Your task to perform on an android device: turn off improve location accuracy Image 0: 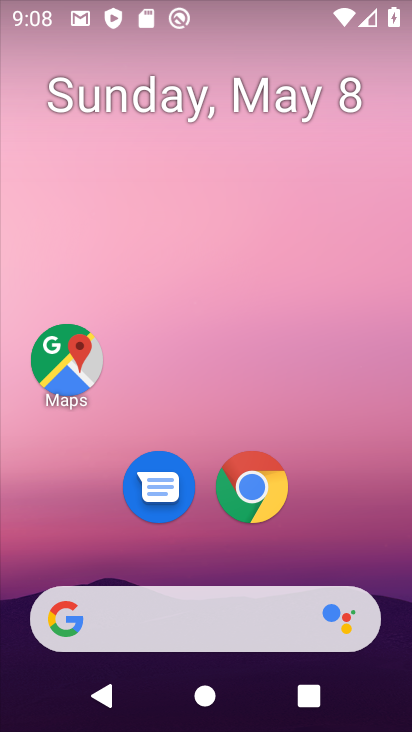
Step 0: drag from (391, 632) to (287, 63)
Your task to perform on an android device: turn off improve location accuracy Image 1: 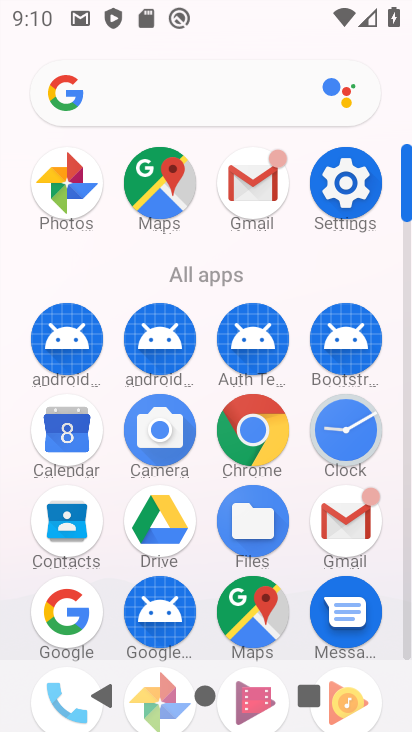
Step 1: click (342, 194)
Your task to perform on an android device: turn off improve location accuracy Image 2: 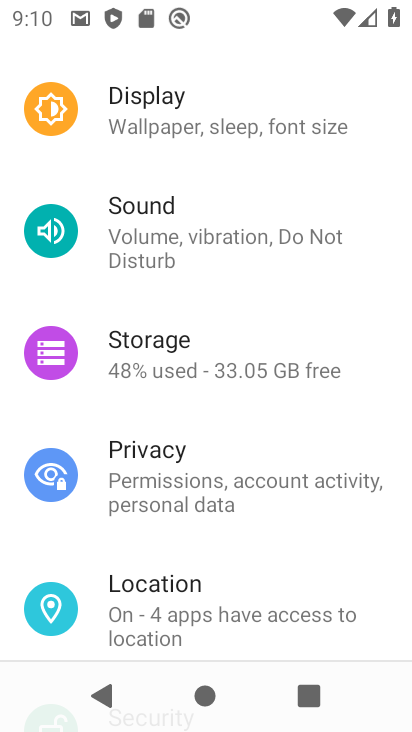
Step 2: click (177, 601)
Your task to perform on an android device: turn off improve location accuracy Image 3: 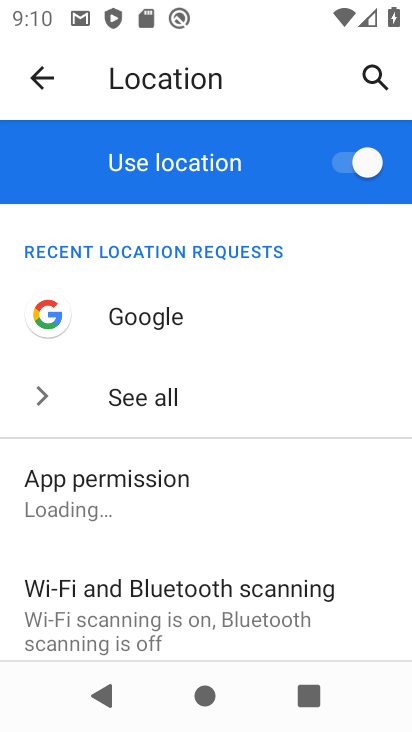
Step 3: drag from (177, 600) to (256, 167)
Your task to perform on an android device: turn off improve location accuracy Image 4: 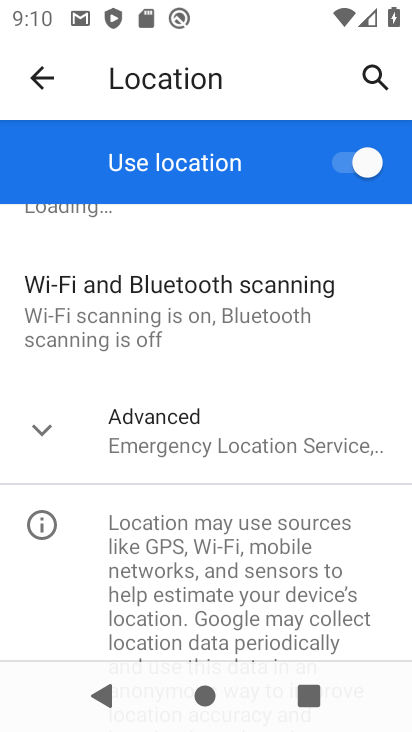
Step 4: click (171, 419)
Your task to perform on an android device: turn off improve location accuracy Image 5: 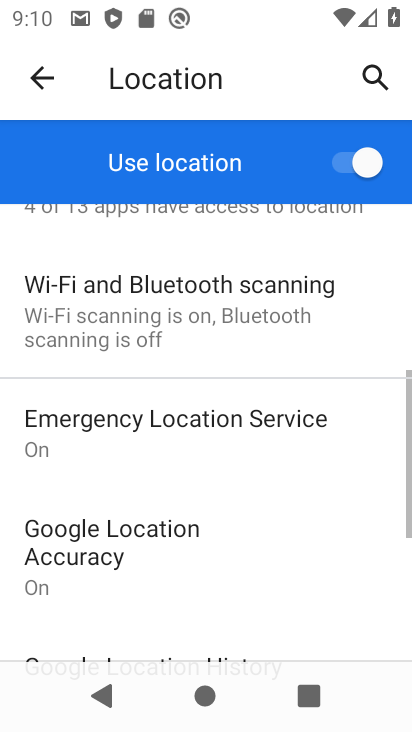
Step 5: click (134, 534)
Your task to perform on an android device: turn off improve location accuracy Image 6: 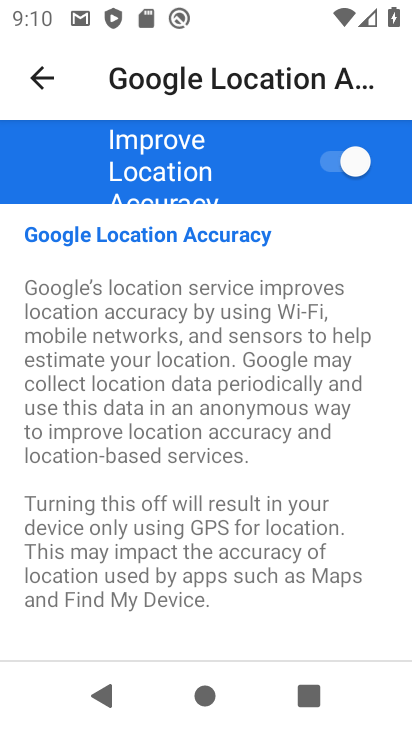
Step 6: click (320, 152)
Your task to perform on an android device: turn off improve location accuracy Image 7: 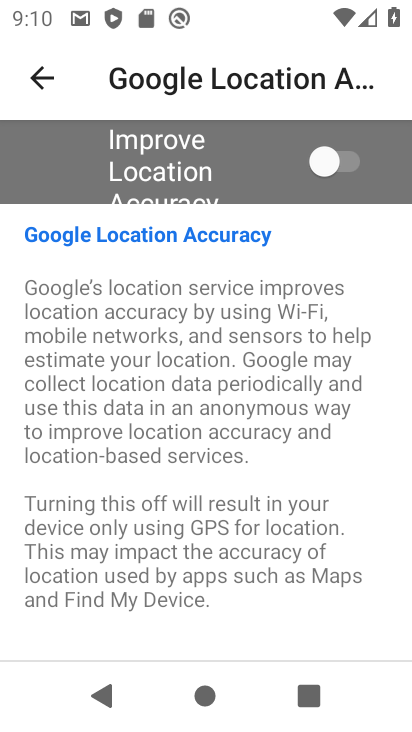
Step 7: task complete